Your task to perform on an android device: Go to CNN.com Image 0: 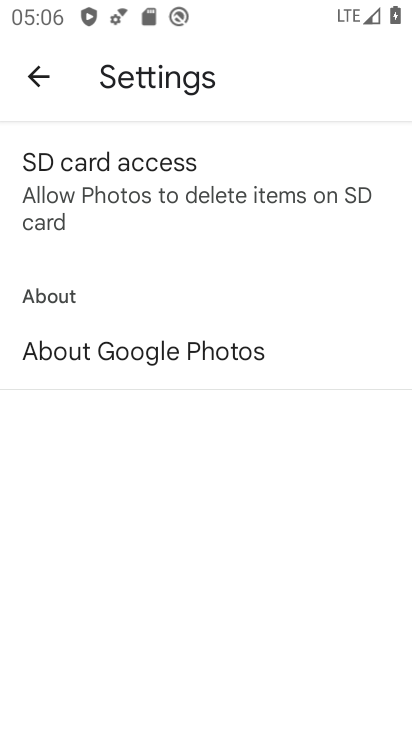
Step 0: press home button
Your task to perform on an android device: Go to CNN.com Image 1: 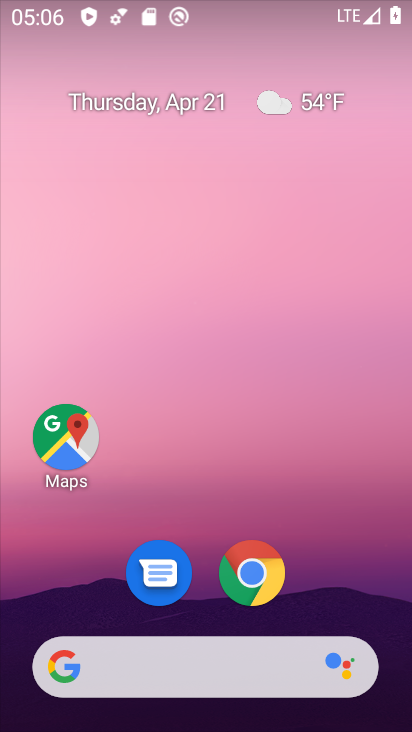
Step 1: click (257, 577)
Your task to perform on an android device: Go to CNN.com Image 2: 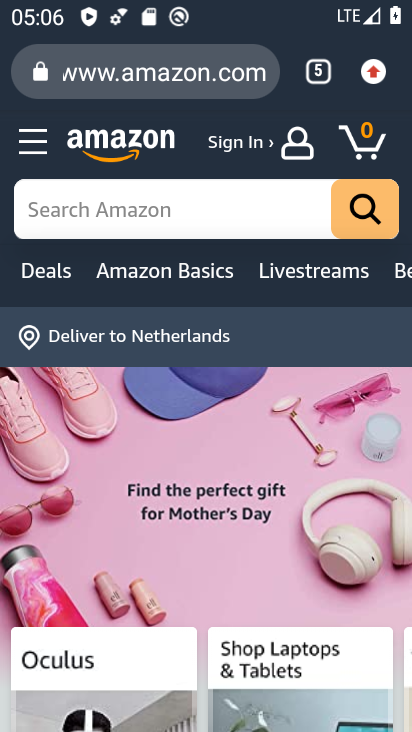
Step 2: click (133, 63)
Your task to perform on an android device: Go to CNN.com Image 3: 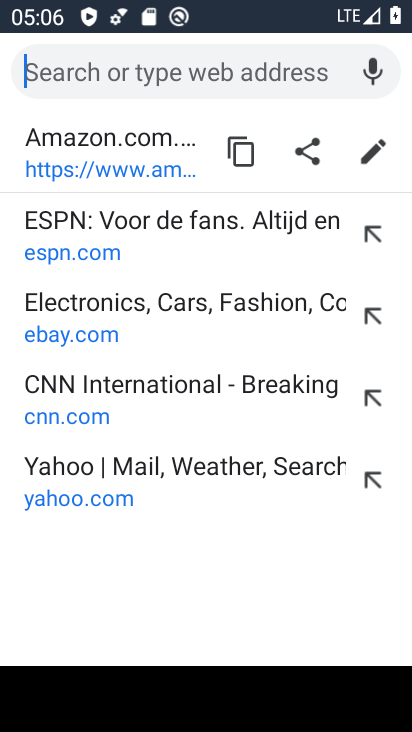
Step 3: type "cnn.com"
Your task to perform on an android device: Go to CNN.com Image 4: 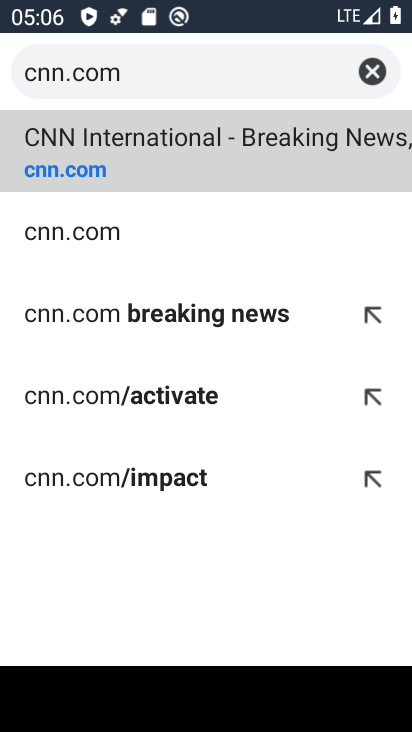
Step 4: click (87, 135)
Your task to perform on an android device: Go to CNN.com Image 5: 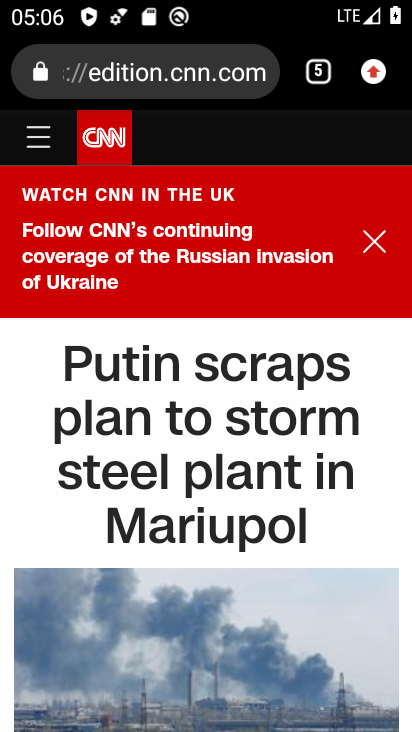
Step 5: task complete